Your task to perform on an android device: Open Youtube and go to the subscriptions tab Image 0: 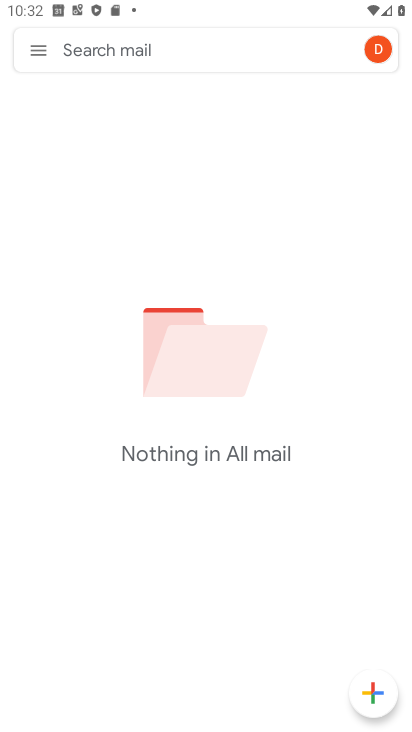
Step 0: press home button
Your task to perform on an android device: Open Youtube and go to the subscriptions tab Image 1: 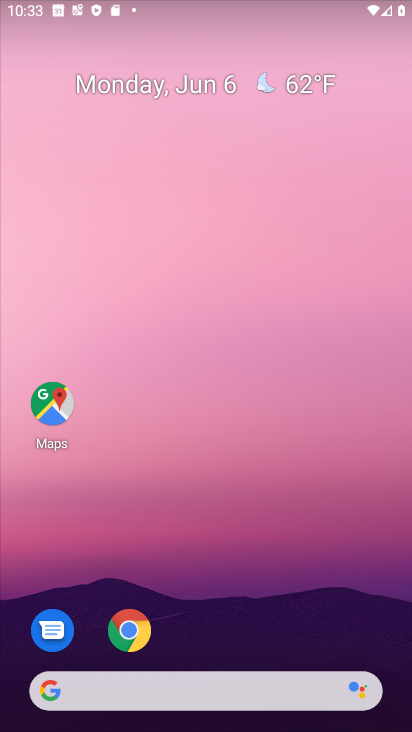
Step 1: drag from (307, 600) to (303, 176)
Your task to perform on an android device: Open Youtube and go to the subscriptions tab Image 2: 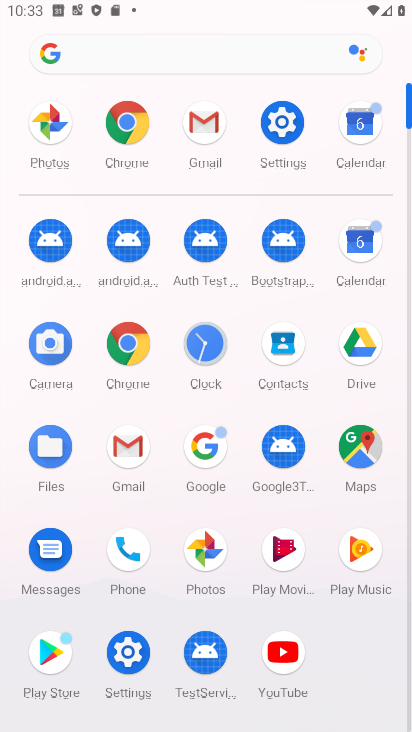
Step 2: click (294, 650)
Your task to perform on an android device: Open Youtube and go to the subscriptions tab Image 3: 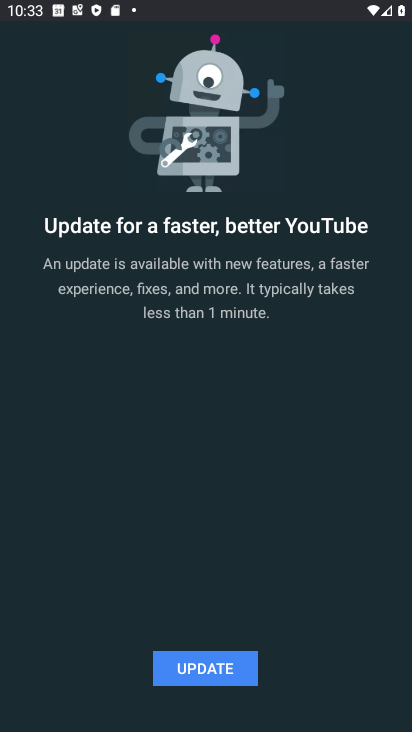
Step 3: click (234, 669)
Your task to perform on an android device: Open Youtube and go to the subscriptions tab Image 4: 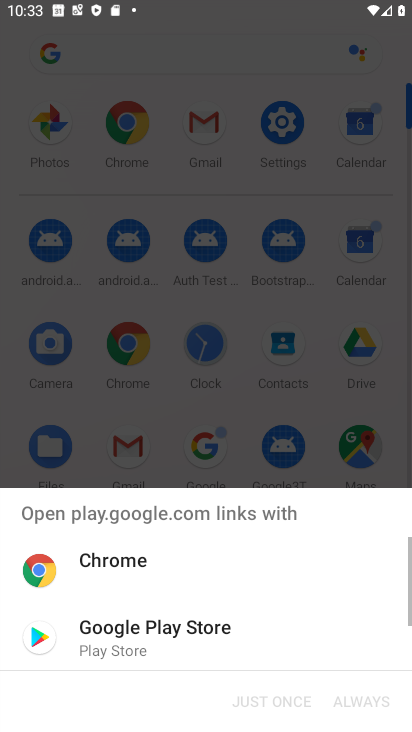
Step 4: click (217, 636)
Your task to perform on an android device: Open Youtube and go to the subscriptions tab Image 5: 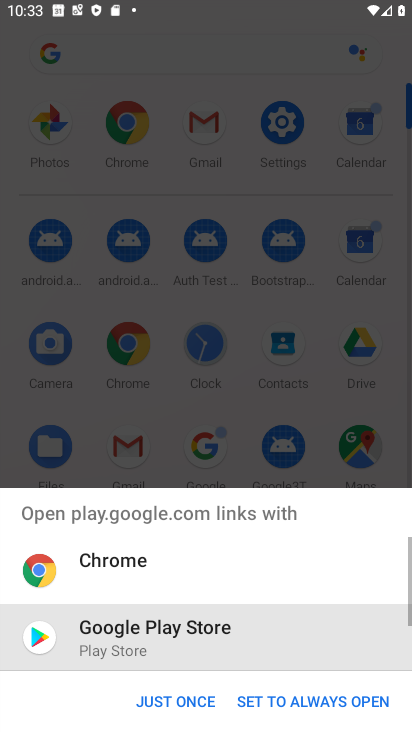
Step 5: click (156, 714)
Your task to perform on an android device: Open Youtube and go to the subscriptions tab Image 6: 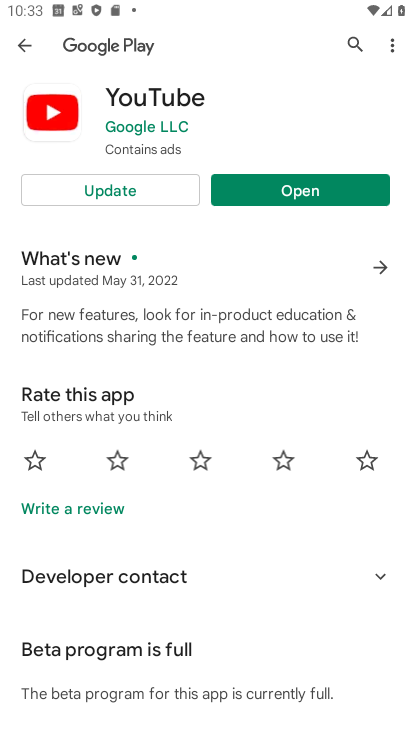
Step 6: click (143, 190)
Your task to perform on an android device: Open Youtube and go to the subscriptions tab Image 7: 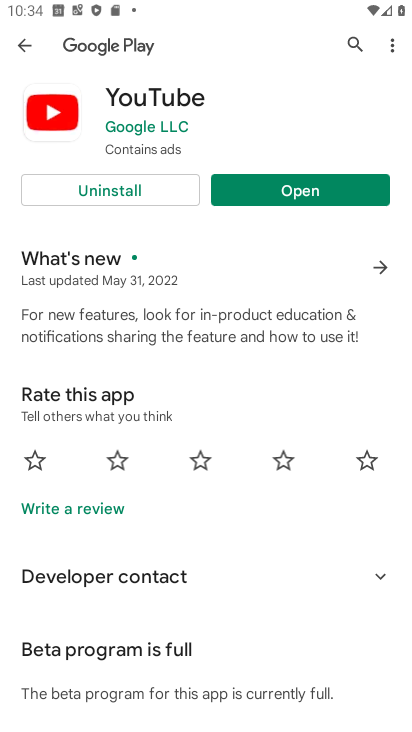
Step 7: click (320, 191)
Your task to perform on an android device: Open Youtube and go to the subscriptions tab Image 8: 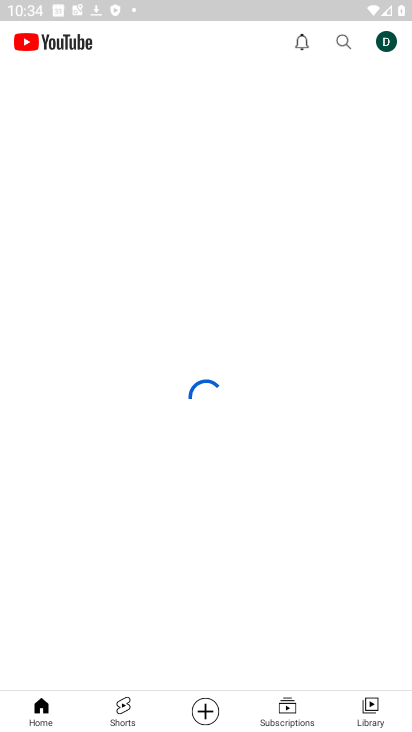
Step 8: click (298, 715)
Your task to perform on an android device: Open Youtube and go to the subscriptions tab Image 9: 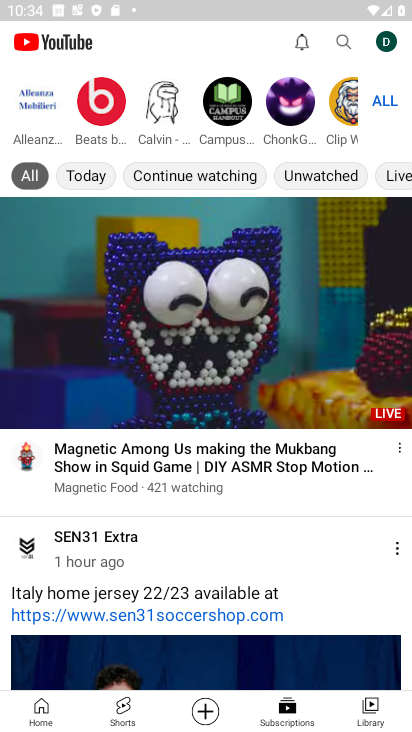
Step 9: click (291, 710)
Your task to perform on an android device: Open Youtube and go to the subscriptions tab Image 10: 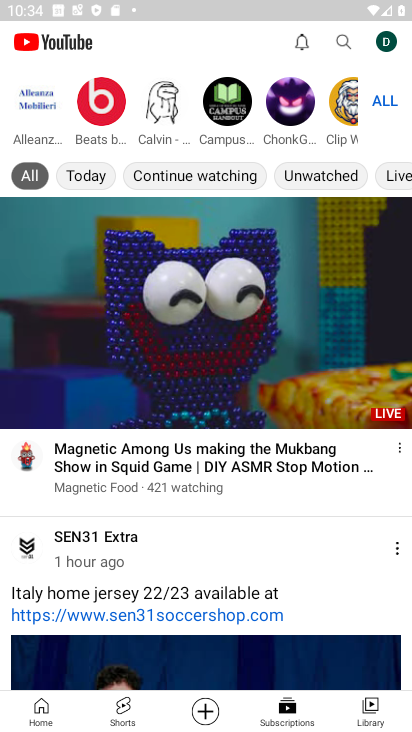
Step 10: task complete